Your task to perform on an android device: Show me recent news Image 0: 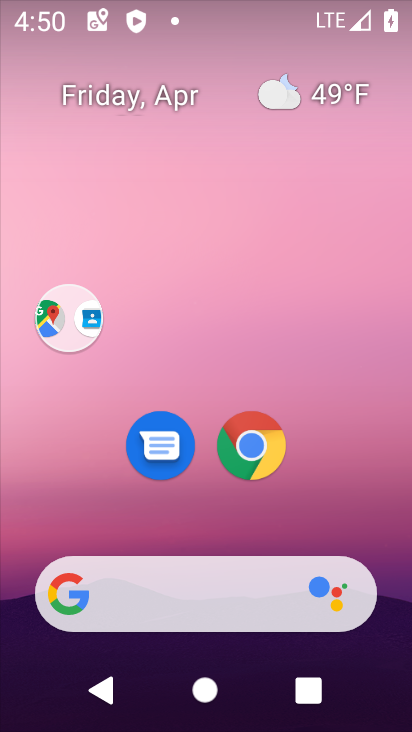
Step 0: drag from (311, 469) to (319, 18)
Your task to perform on an android device: Show me recent news Image 1: 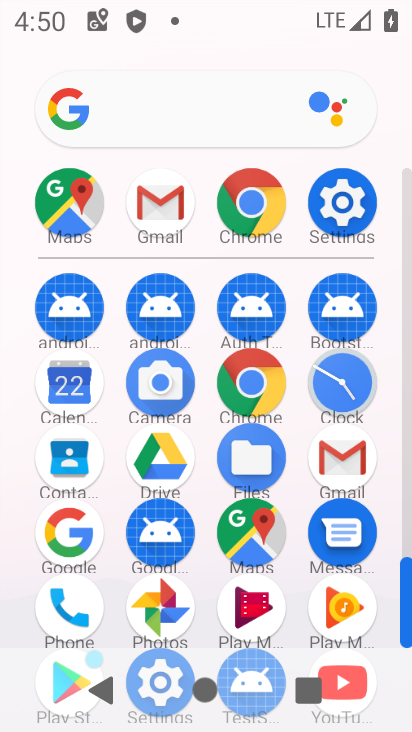
Step 1: click (260, 391)
Your task to perform on an android device: Show me recent news Image 2: 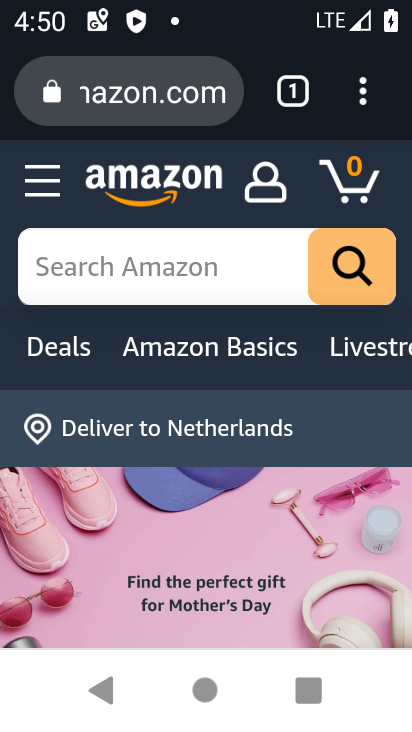
Step 2: click (195, 93)
Your task to perform on an android device: Show me recent news Image 3: 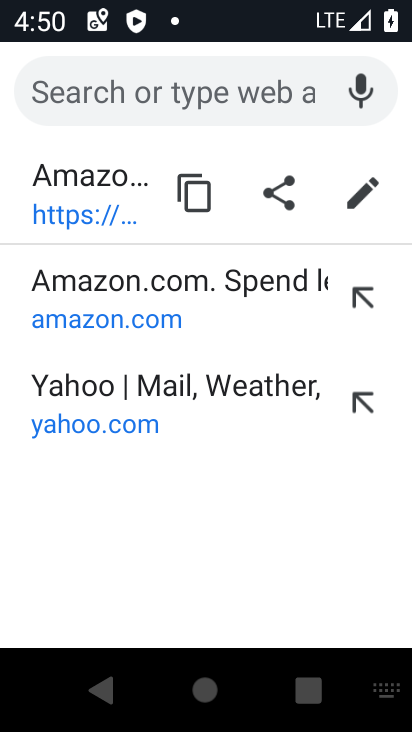
Step 3: type "news"
Your task to perform on an android device: Show me recent news Image 4: 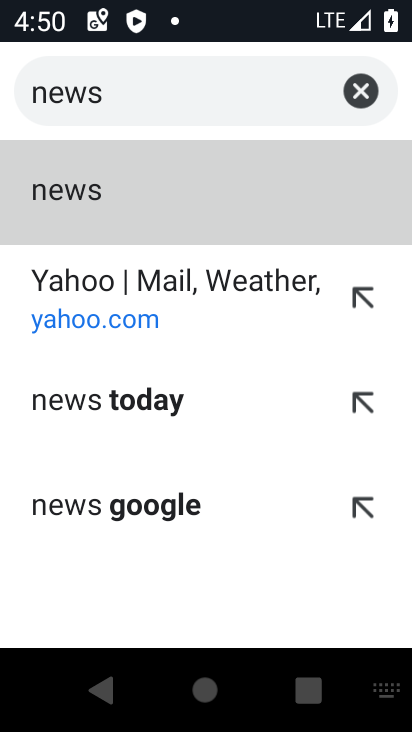
Step 4: press enter
Your task to perform on an android device: Show me recent news Image 5: 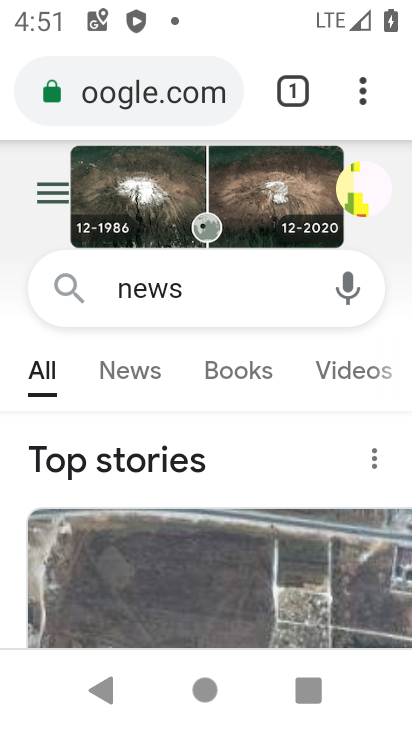
Step 5: click (118, 373)
Your task to perform on an android device: Show me recent news Image 6: 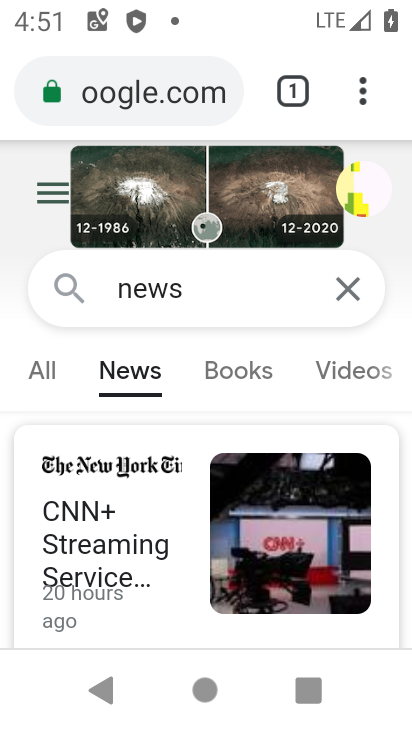
Step 6: task complete